Your task to perform on an android device: change keyboard looks Image 0: 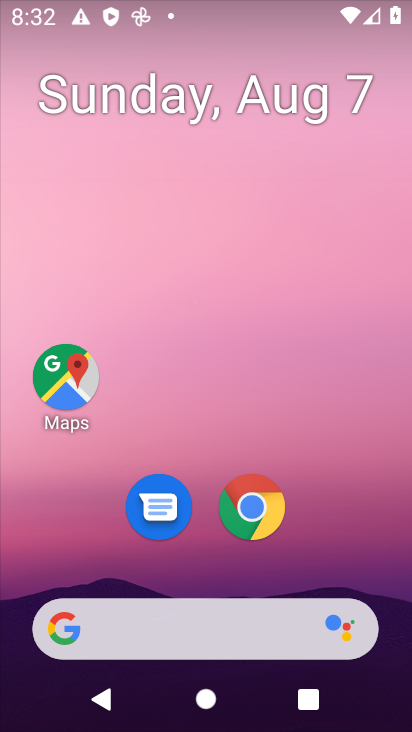
Step 0: press home button
Your task to perform on an android device: change keyboard looks Image 1: 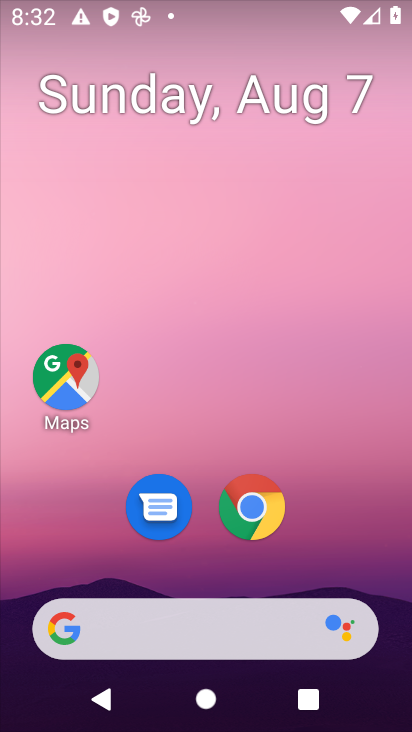
Step 1: drag from (198, 629) to (253, 97)
Your task to perform on an android device: change keyboard looks Image 2: 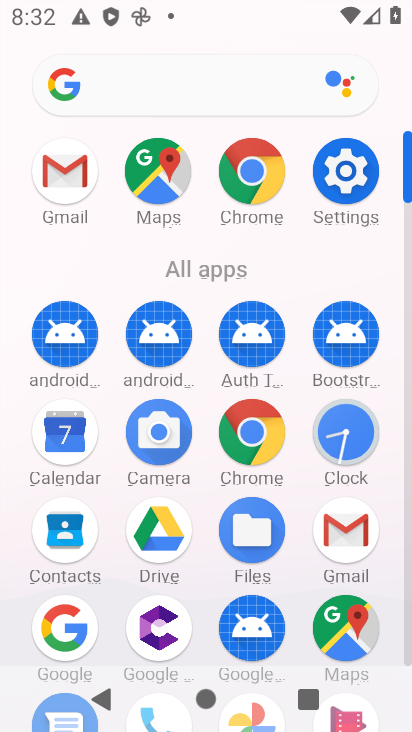
Step 2: click (354, 171)
Your task to perform on an android device: change keyboard looks Image 3: 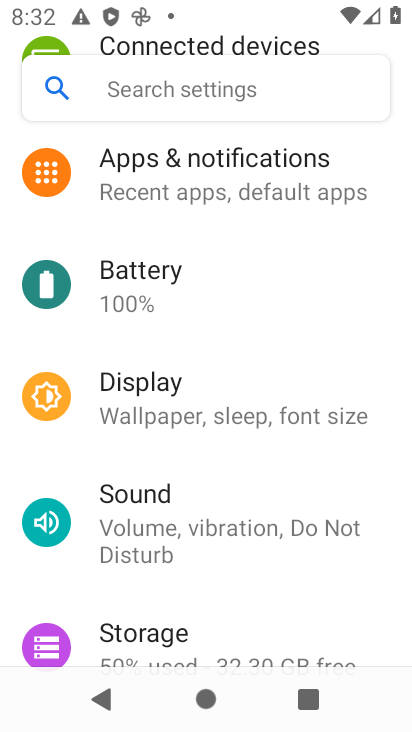
Step 3: drag from (253, 576) to (302, 44)
Your task to perform on an android device: change keyboard looks Image 4: 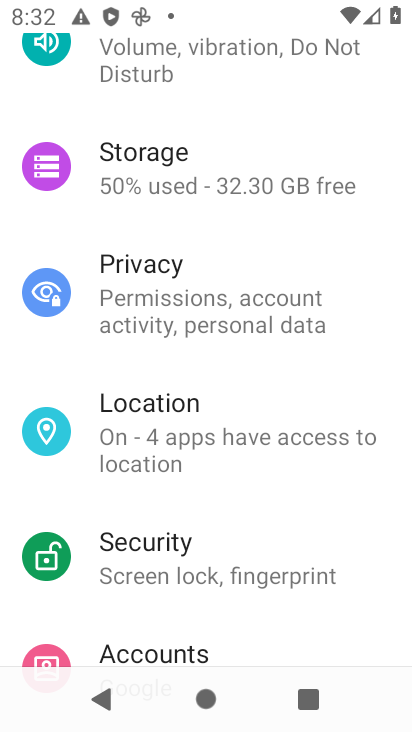
Step 4: drag from (245, 629) to (287, 41)
Your task to perform on an android device: change keyboard looks Image 5: 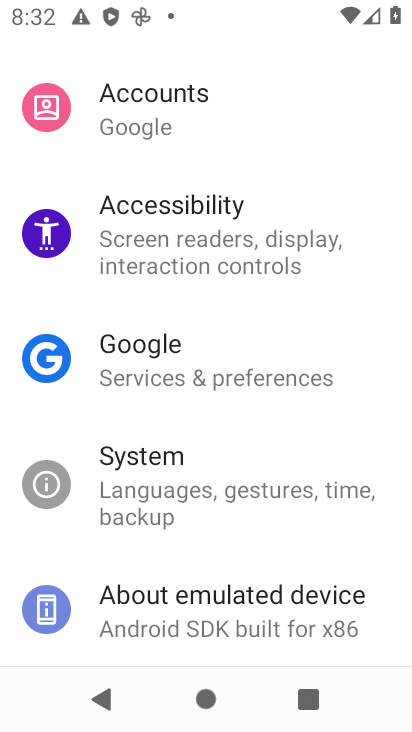
Step 5: click (204, 492)
Your task to perform on an android device: change keyboard looks Image 6: 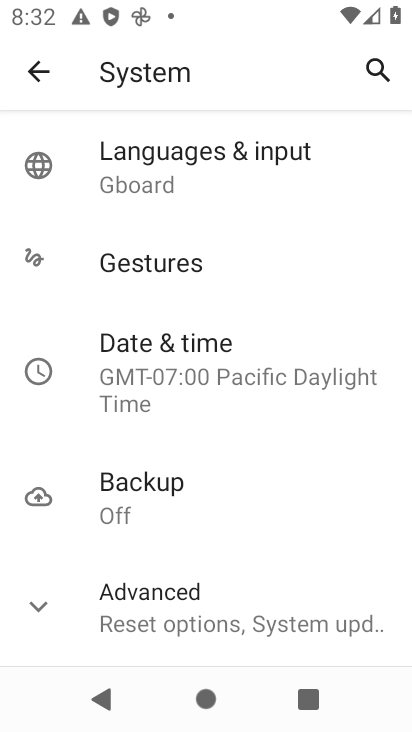
Step 6: click (207, 177)
Your task to perform on an android device: change keyboard looks Image 7: 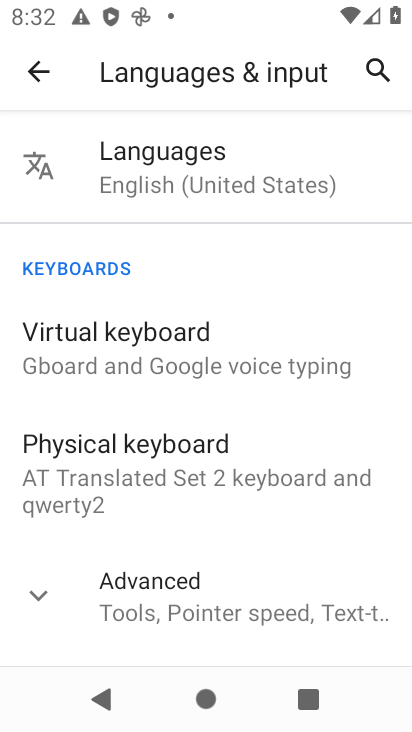
Step 7: click (179, 347)
Your task to perform on an android device: change keyboard looks Image 8: 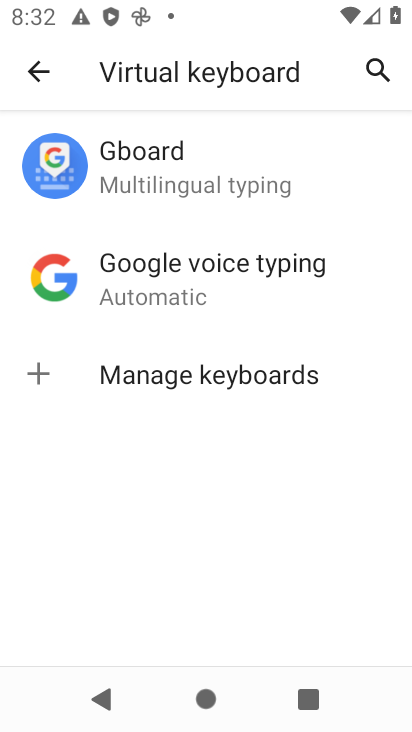
Step 8: click (153, 170)
Your task to perform on an android device: change keyboard looks Image 9: 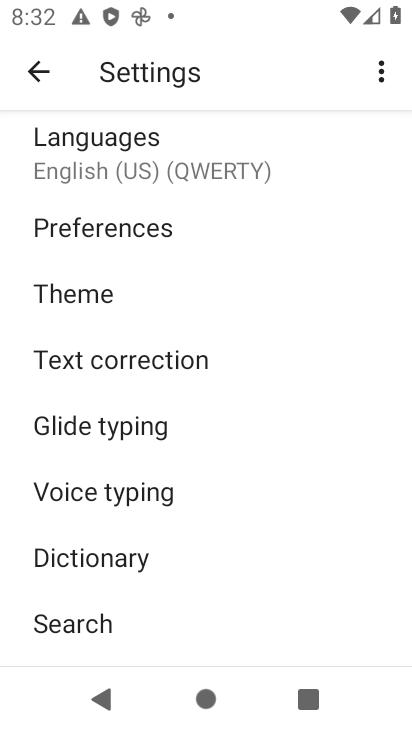
Step 9: click (93, 294)
Your task to perform on an android device: change keyboard looks Image 10: 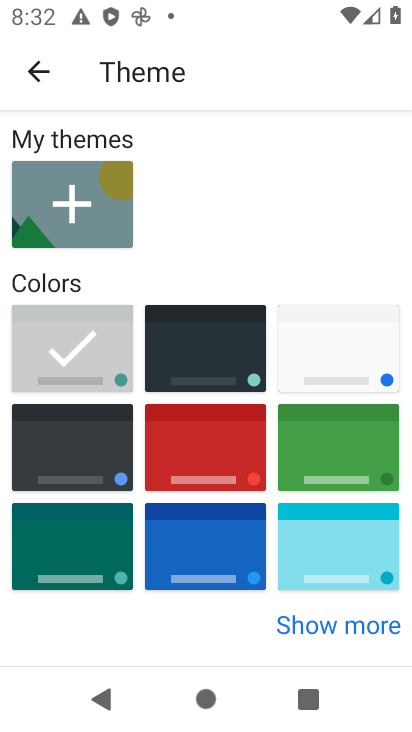
Step 10: click (223, 553)
Your task to perform on an android device: change keyboard looks Image 11: 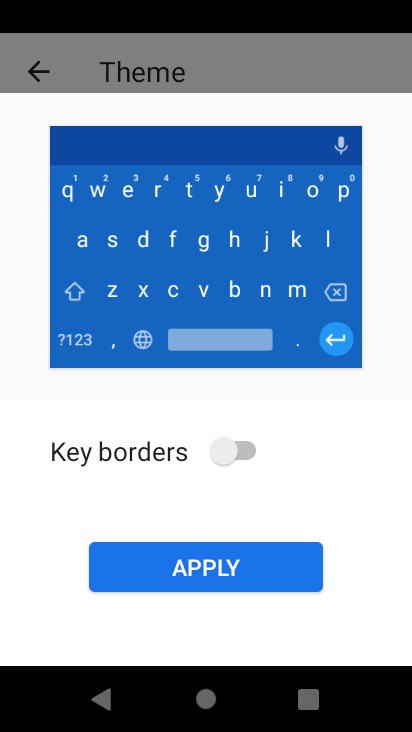
Step 11: click (220, 563)
Your task to perform on an android device: change keyboard looks Image 12: 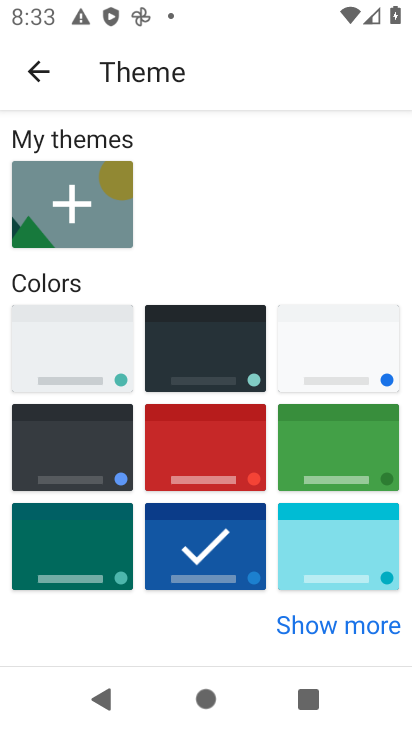
Step 12: task complete